Your task to perform on an android device: Go to wifi settings Image 0: 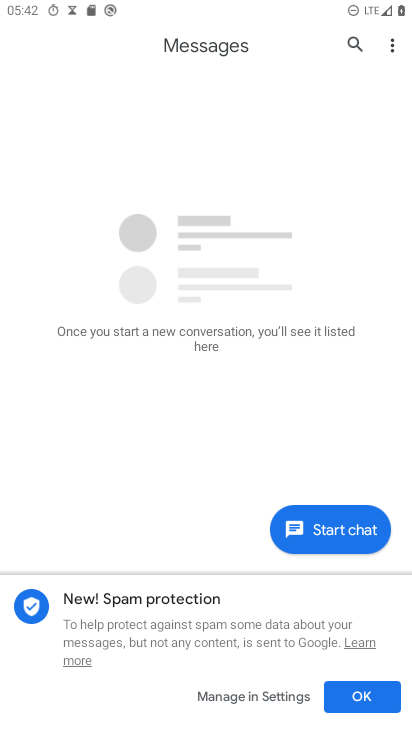
Step 0: press home button
Your task to perform on an android device: Go to wifi settings Image 1: 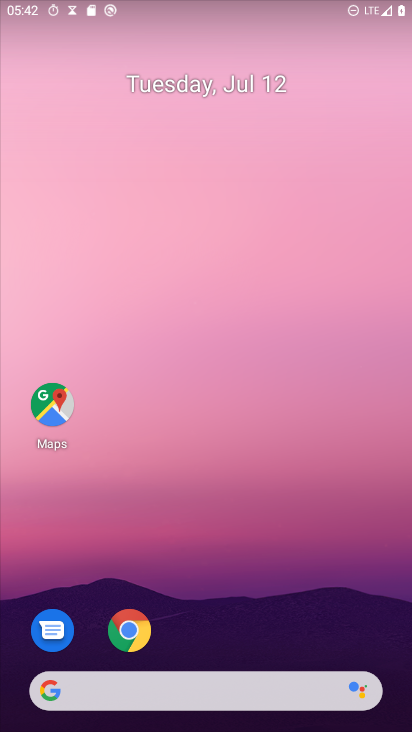
Step 1: drag from (260, 644) to (303, 57)
Your task to perform on an android device: Go to wifi settings Image 2: 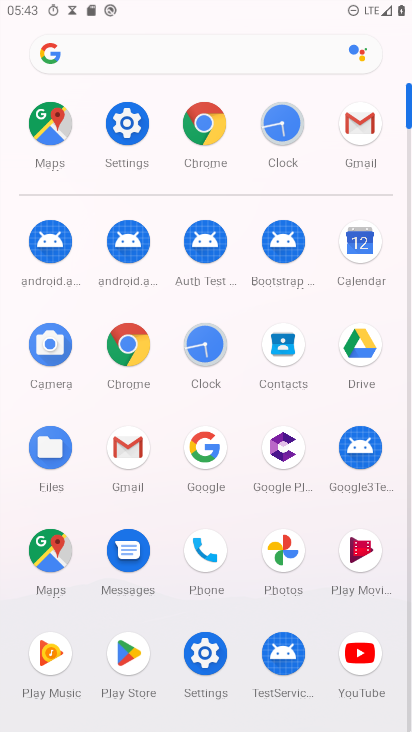
Step 2: click (114, 110)
Your task to perform on an android device: Go to wifi settings Image 3: 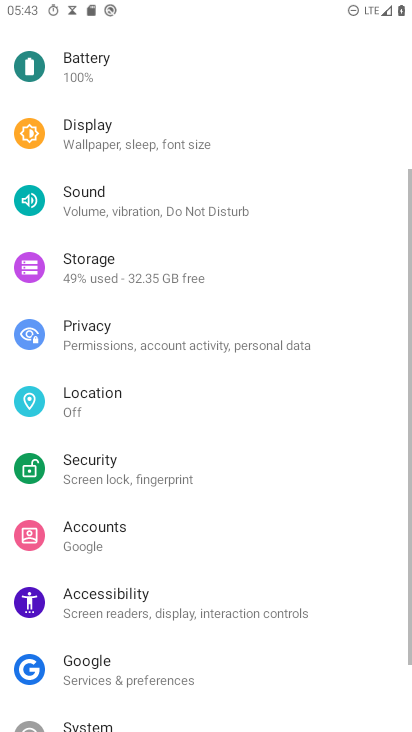
Step 3: drag from (188, 133) to (263, 706)
Your task to perform on an android device: Go to wifi settings Image 4: 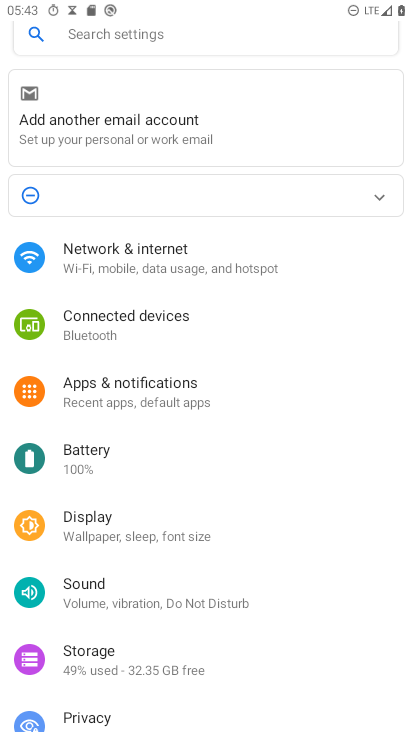
Step 4: click (183, 253)
Your task to perform on an android device: Go to wifi settings Image 5: 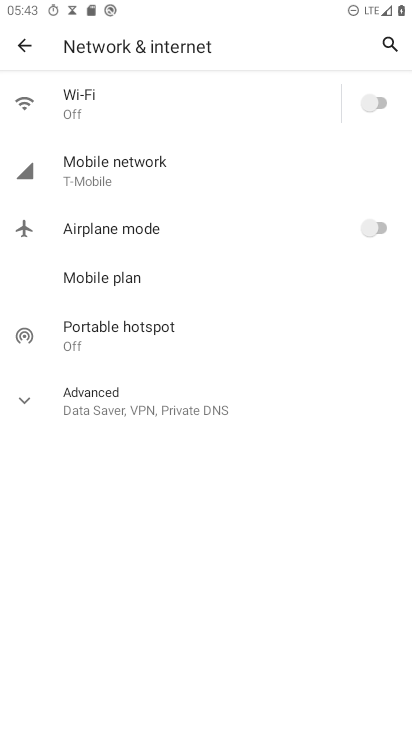
Step 5: click (141, 107)
Your task to perform on an android device: Go to wifi settings Image 6: 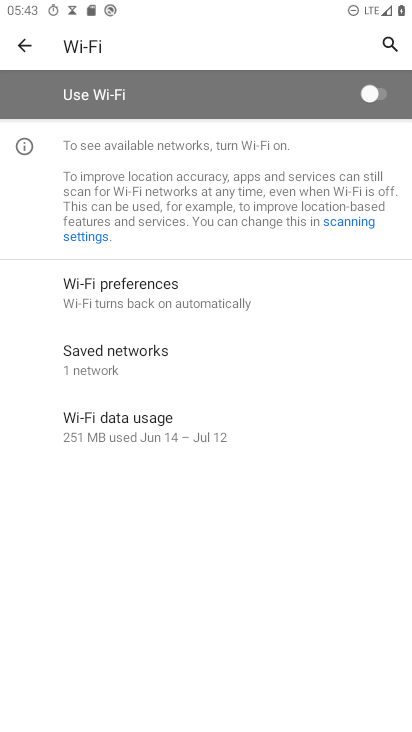
Step 6: task complete